Your task to perform on an android device: Go to Amazon Image 0: 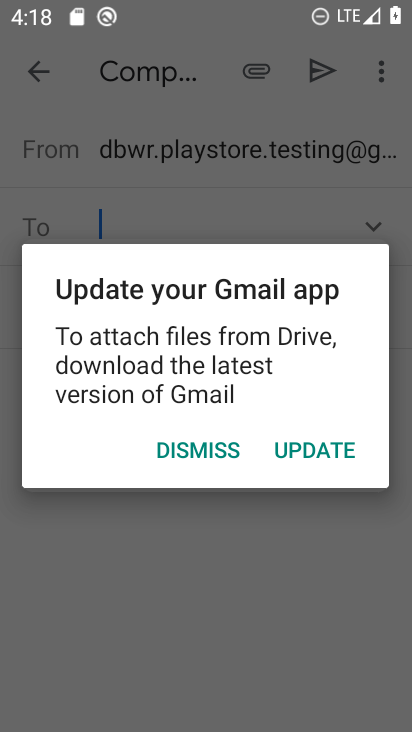
Step 0: press home button
Your task to perform on an android device: Go to Amazon Image 1: 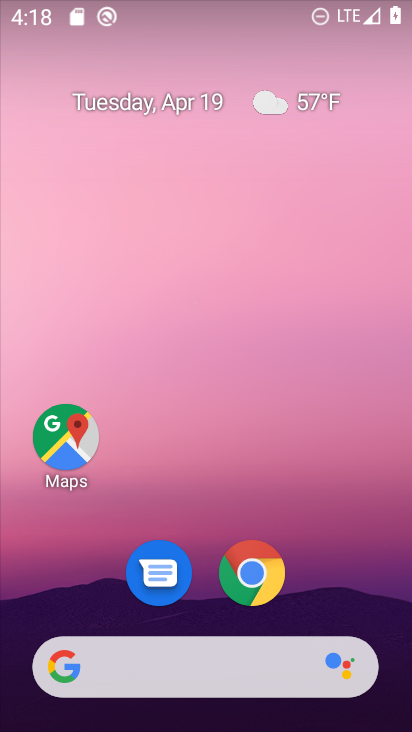
Step 1: click (251, 573)
Your task to perform on an android device: Go to Amazon Image 2: 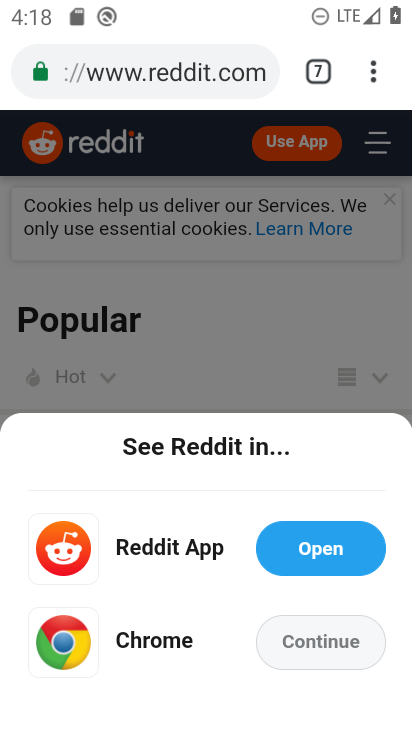
Step 2: click (372, 74)
Your task to perform on an android device: Go to Amazon Image 3: 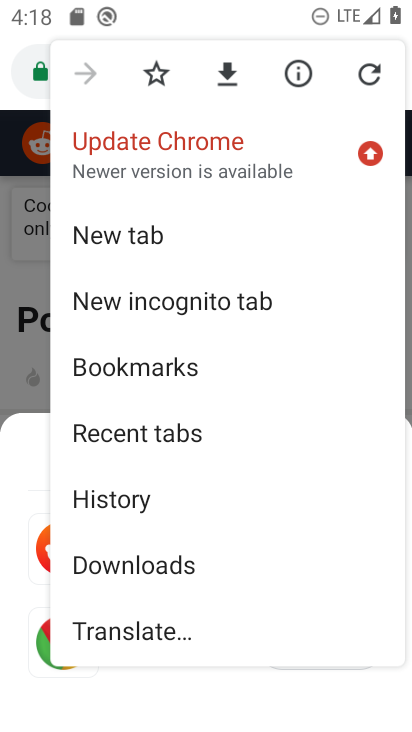
Step 3: click (144, 234)
Your task to perform on an android device: Go to Amazon Image 4: 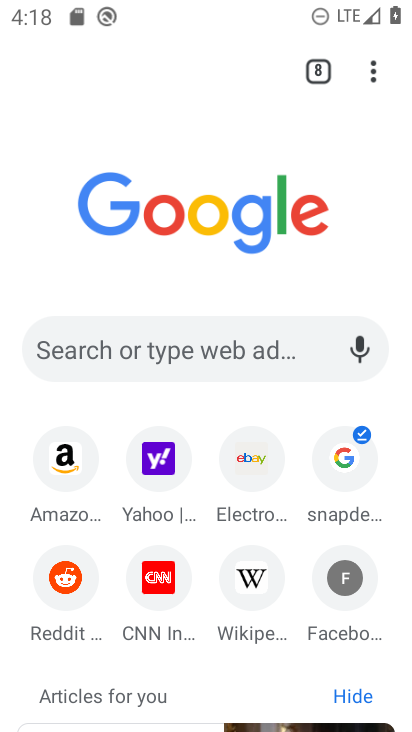
Step 4: click (60, 459)
Your task to perform on an android device: Go to Amazon Image 5: 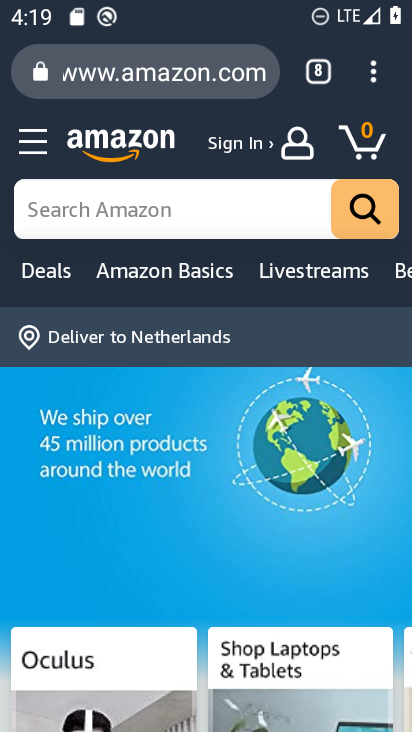
Step 5: task complete